Your task to perform on an android device: delete location history Image 0: 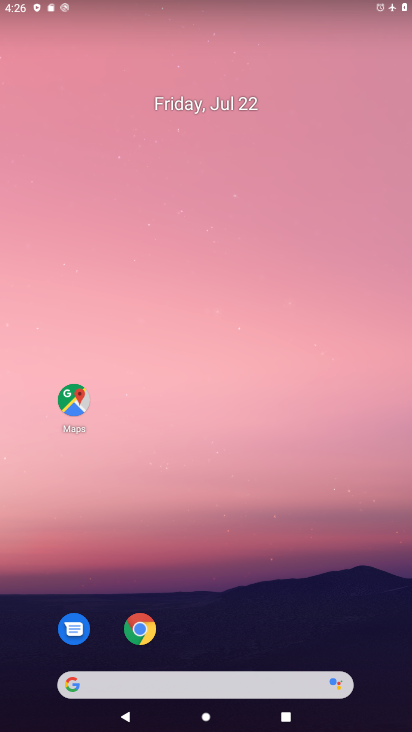
Step 0: drag from (274, 558) to (261, 18)
Your task to perform on an android device: delete location history Image 1: 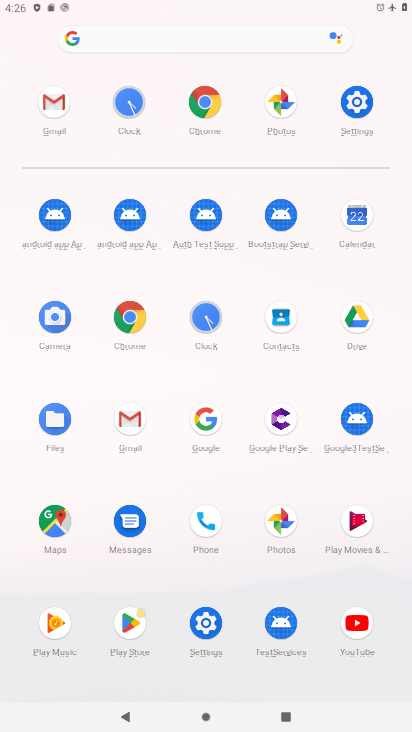
Step 1: click (53, 519)
Your task to perform on an android device: delete location history Image 2: 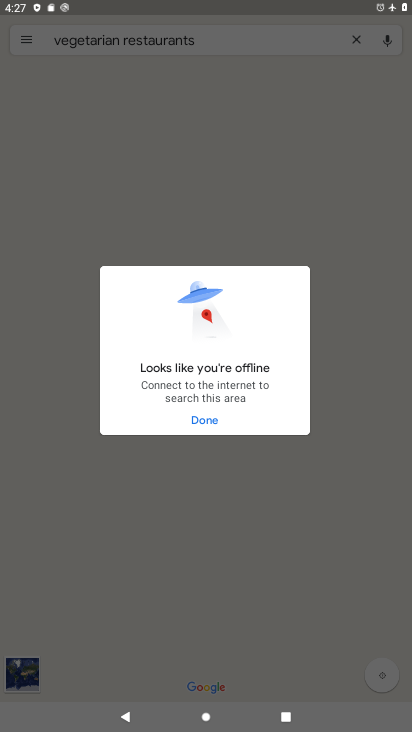
Step 2: click (211, 429)
Your task to perform on an android device: delete location history Image 3: 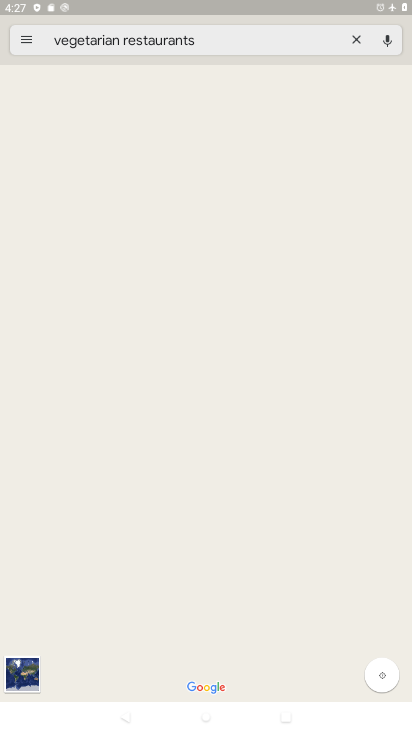
Step 3: click (20, 28)
Your task to perform on an android device: delete location history Image 4: 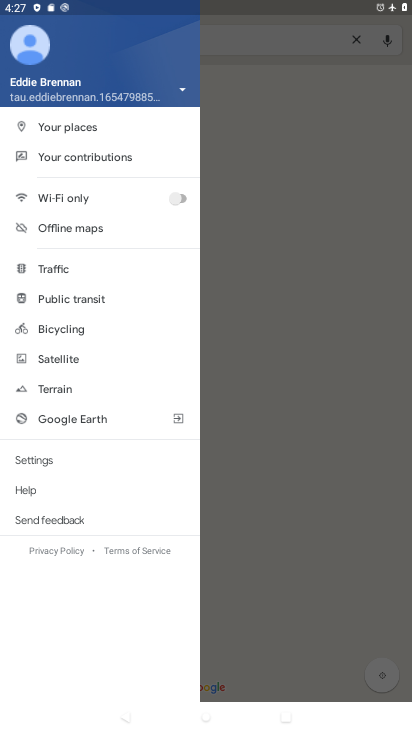
Step 4: click (46, 464)
Your task to perform on an android device: delete location history Image 5: 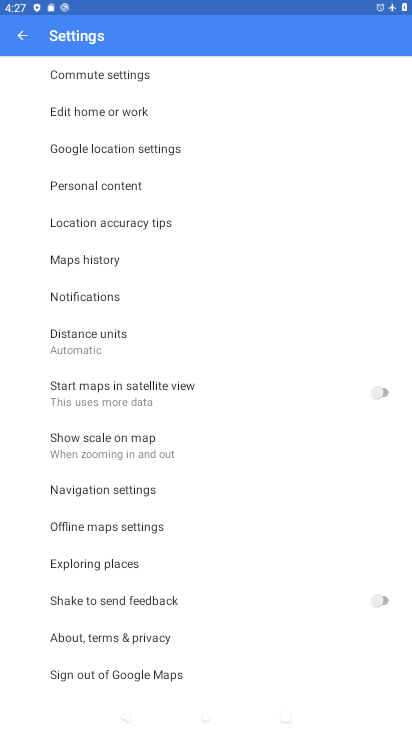
Step 5: click (96, 260)
Your task to perform on an android device: delete location history Image 6: 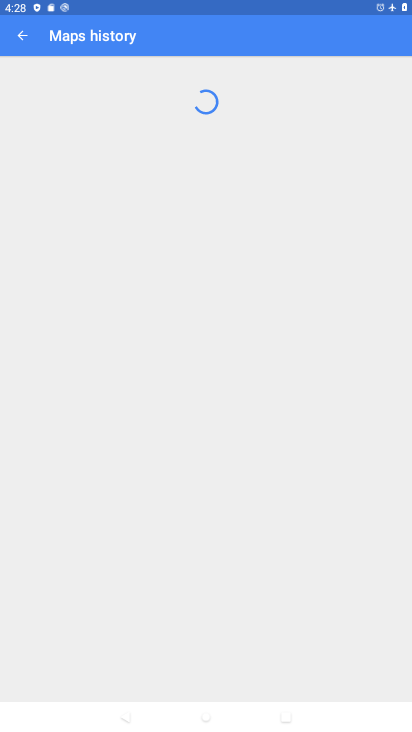
Step 6: task complete